Your task to perform on an android device: Set the phone to "Do not disturb". Image 0: 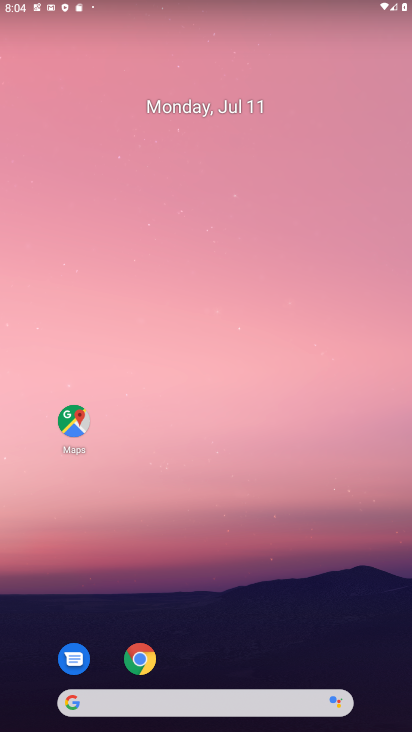
Step 0: drag from (212, 535) to (150, 236)
Your task to perform on an android device: Set the phone to "Do not disturb". Image 1: 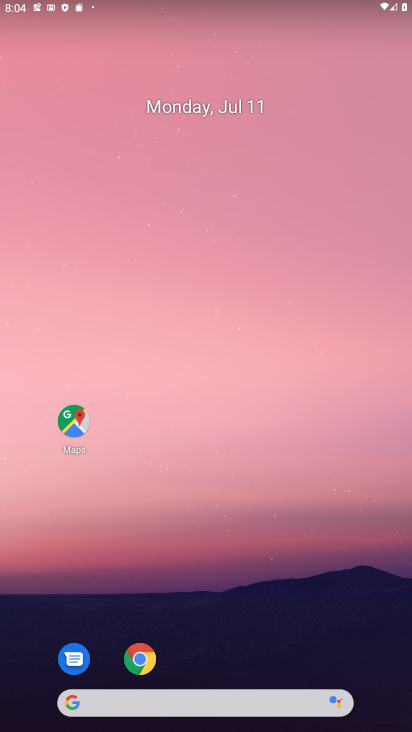
Step 1: drag from (220, 694) to (155, 77)
Your task to perform on an android device: Set the phone to "Do not disturb". Image 2: 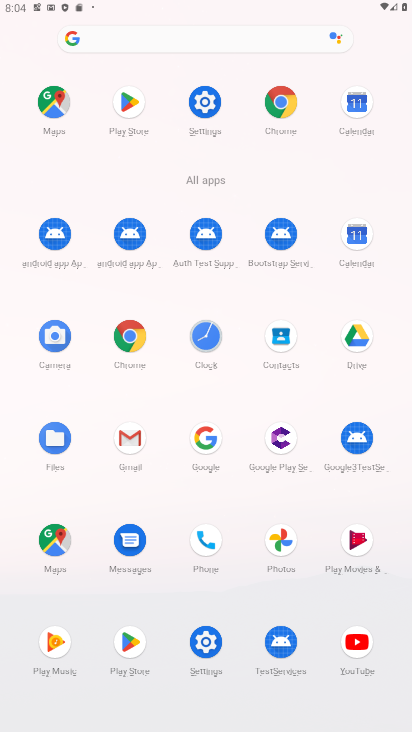
Step 2: click (208, 641)
Your task to perform on an android device: Set the phone to "Do not disturb". Image 3: 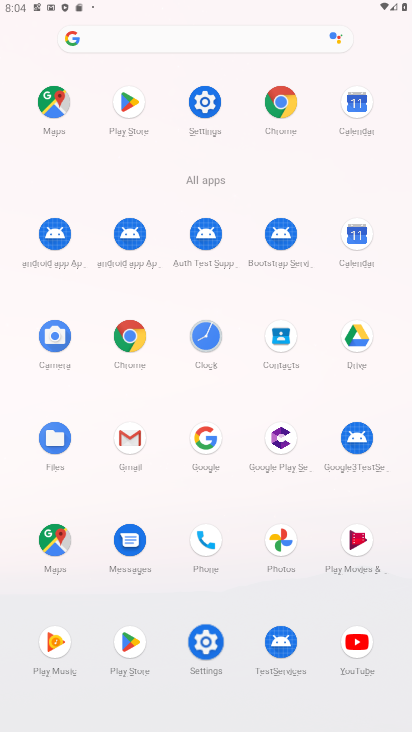
Step 3: click (215, 616)
Your task to perform on an android device: Set the phone to "Do not disturb". Image 4: 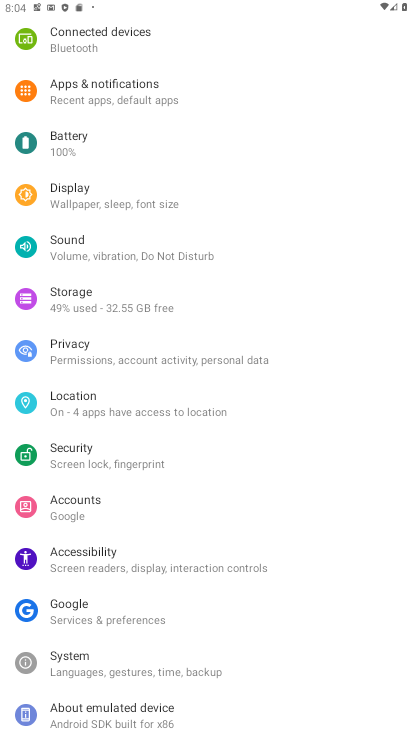
Step 4: click (198, 647)
Your task to perform on an android device: Set the phone to "Do not disturb". Image 5: 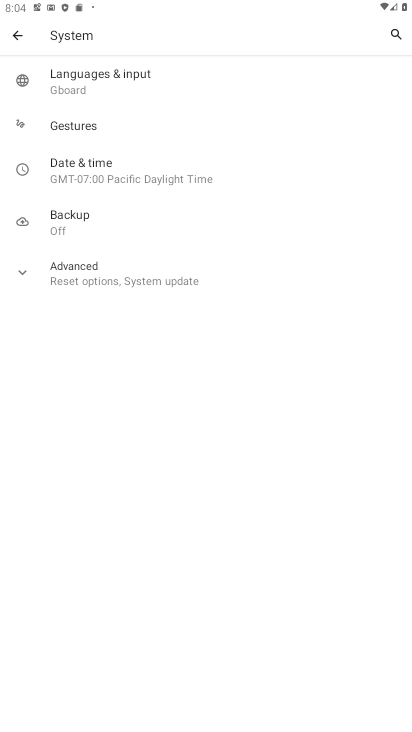
Step 5: click (18, 40)
Your task to perform on an android device: Set the phone to "Do not disturb". Image 6: 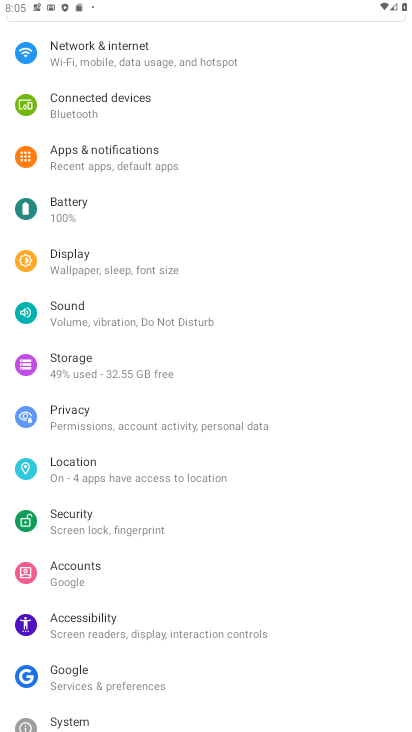
Step 6: drag from (87, 539) to (75, 162)
Your task to perform on an android device: Set the phone to "Do not disturb". Image 7: 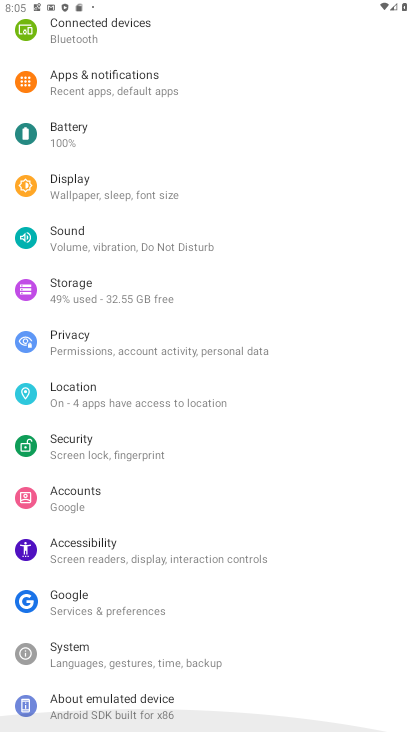
Step 7: drag from (135, 409) to (130, 128)
Your task to perform on an android device: Set the phone to "Do not disturb". Image 8: 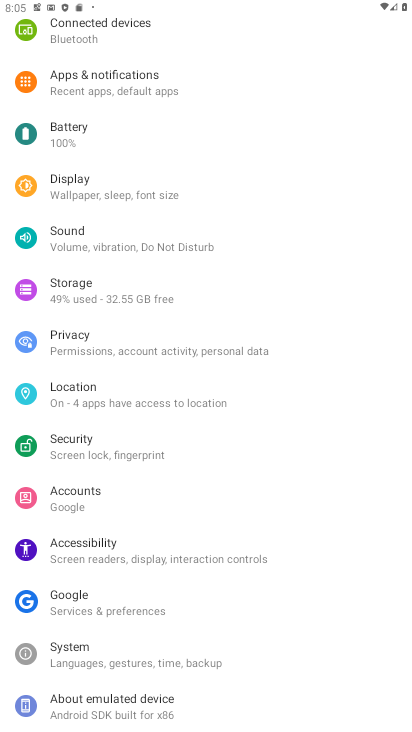
Step 8: click (139, 235)
Your task to perform on an android device: Set the phone to "Do not disturb". Image 9: 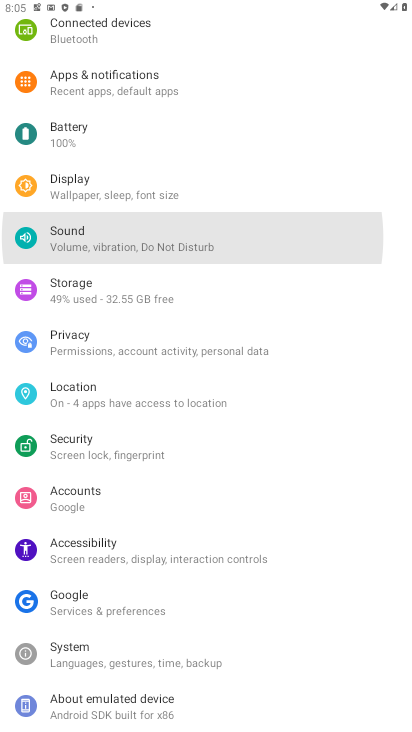
Step 9: click (139, 235)
Your task to perform on an android device: Set the phone to "Do not disturb". Image 10: 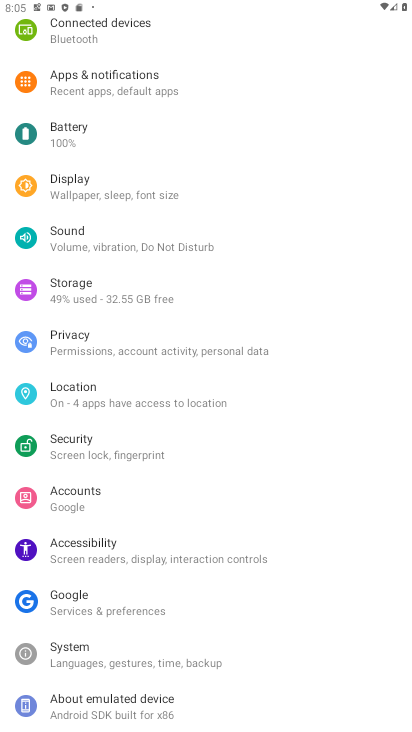
Step 10: click (137, 237)
Your task to perform on an android device: Set the phone to "Do not disturb". Image 11: 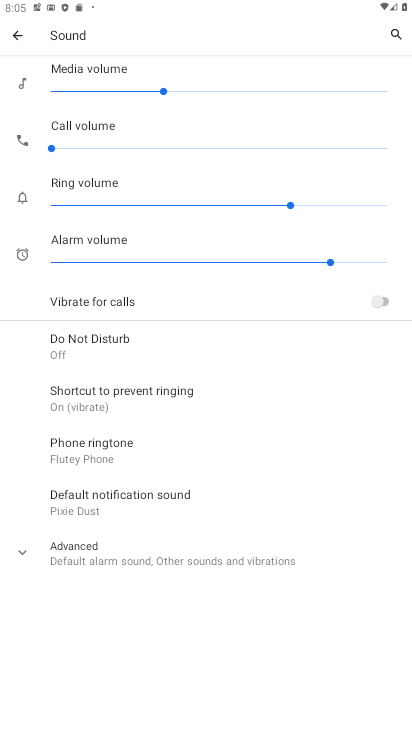
Step 11: click (84, 339)
Your task to perform on an android device: Set the phone to "Do not disturb". Image 12: 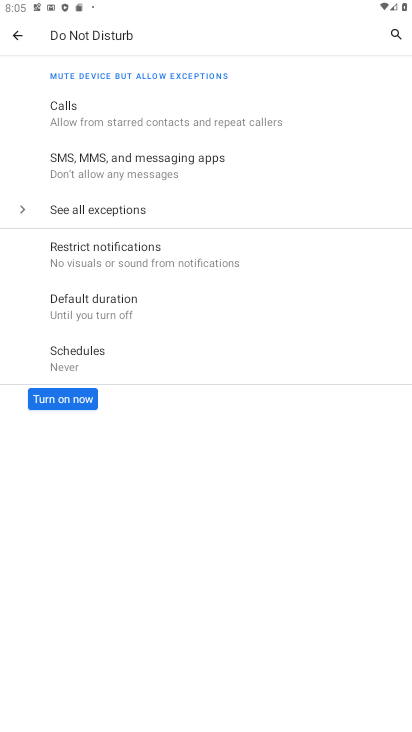
Step 12: click (84, 337)
Your task to perform on an android device: Set the phone to "Do not disturb". Image 13: 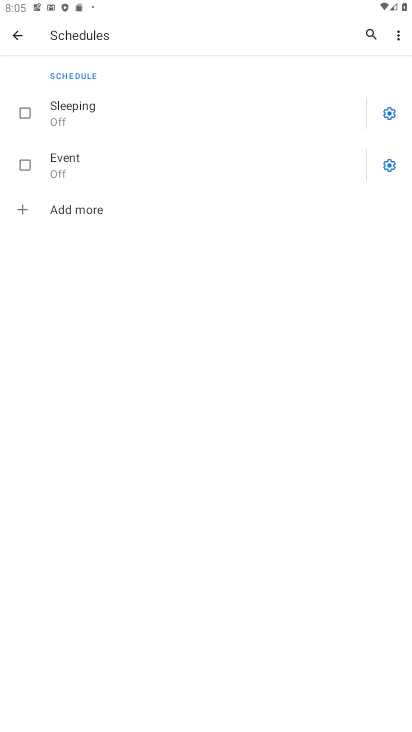
Step 13: task complete